Your task to perform on an android device: Do I have any events this weekend? Image 0: 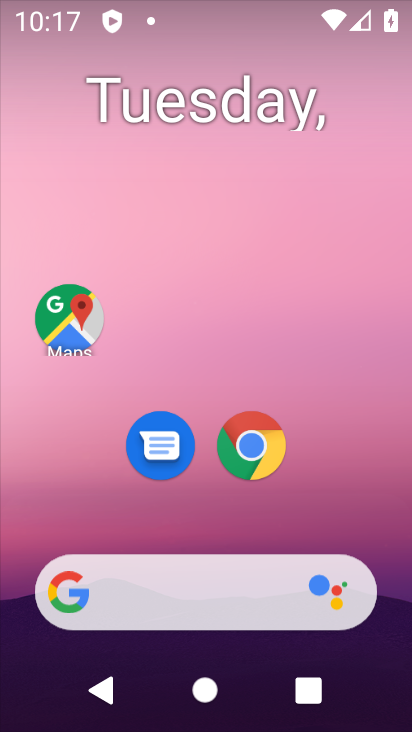
Step 0: drag from (335, 527) to (277, 10)
Your task to perform on an android device: Do I have any events this weekend? Image 1: 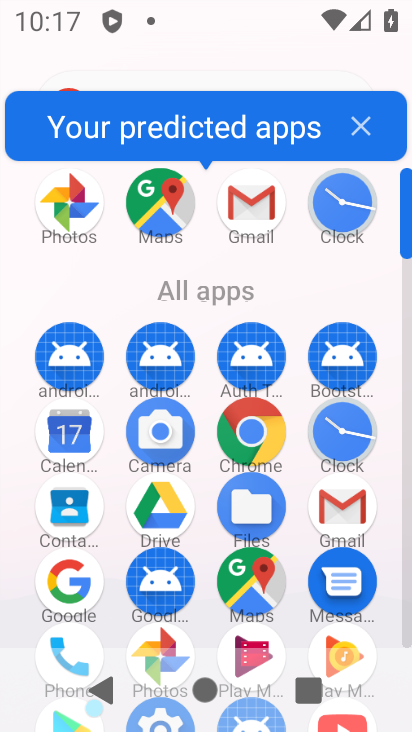
Step 1: press home button
Your task to perform on an android device: Do I have any events this weekend? Image 2: 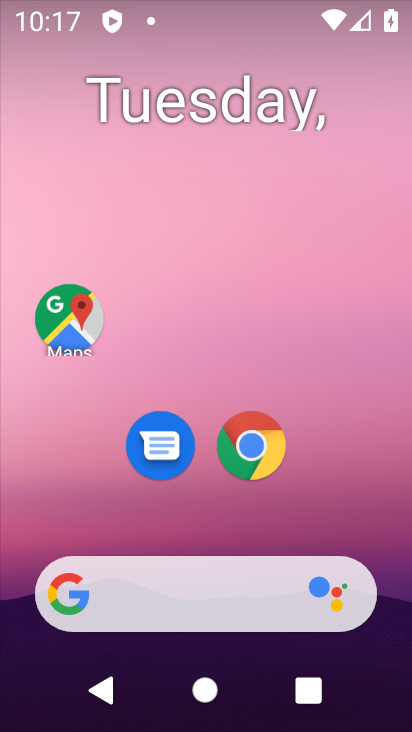
Step 2: drag from (272, 470) to (274, 81)
Your task to perform on an android device: Do I have any events this weekend? Image 3: 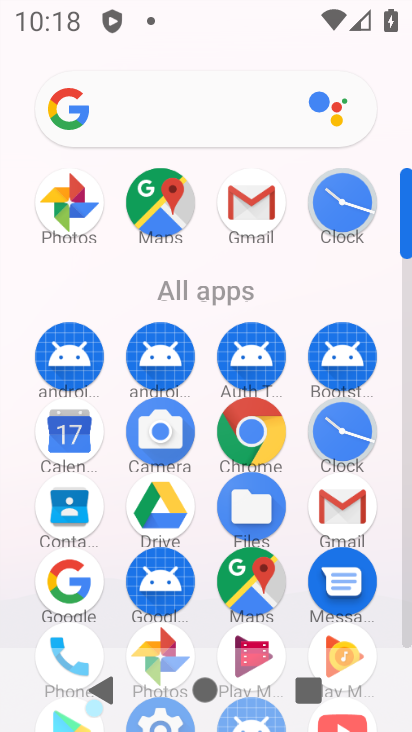
Step 3: drag from (282, 548) to (277, 151)
Your task to perform on an android device: Do I have any events this weekend? Image 4: 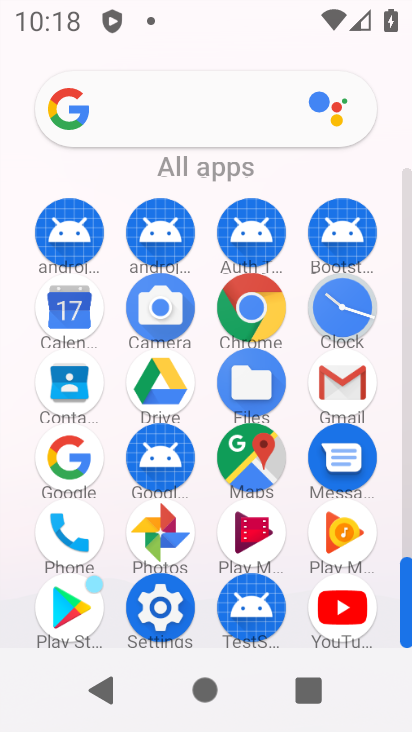
Step 4: drag from (263, 250) to (172, 554)
Your task to perform on an android device: Do I have any events this weekend? Image 5: 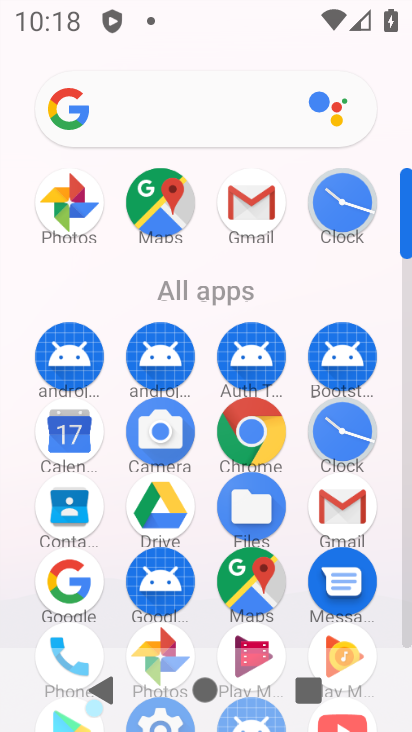
Step 5: click (73, 439)
Your task to perform on an android device: Do I have any events this weekend? Image 6: 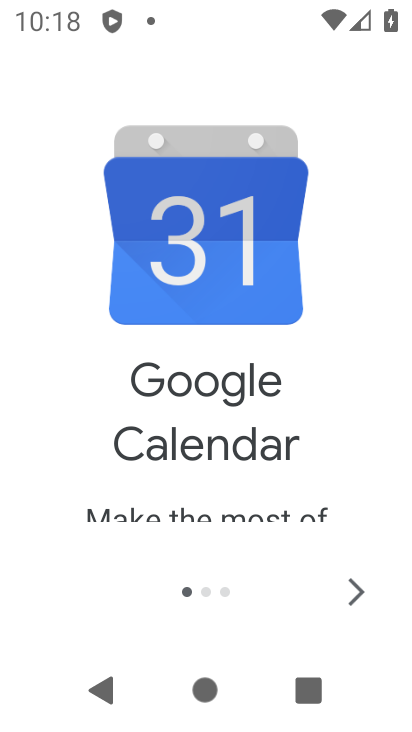
Step 6: click (357, 596)
Your task to perform on an android device: Do I have any events this weekend? Image 7: 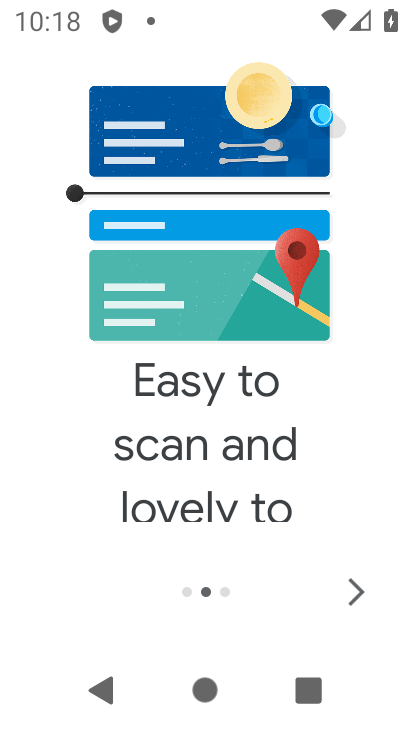
Step 7: click (357, 596)
Your task to perform on an android device: Do I have any events this weekend? Image 8: 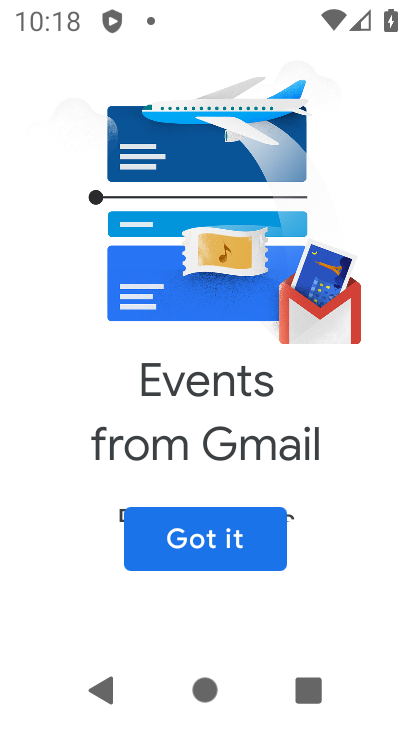
Step 8: click (192, 556)
Your task to perform on an android device: Do I have any events this weekend? Image 9: 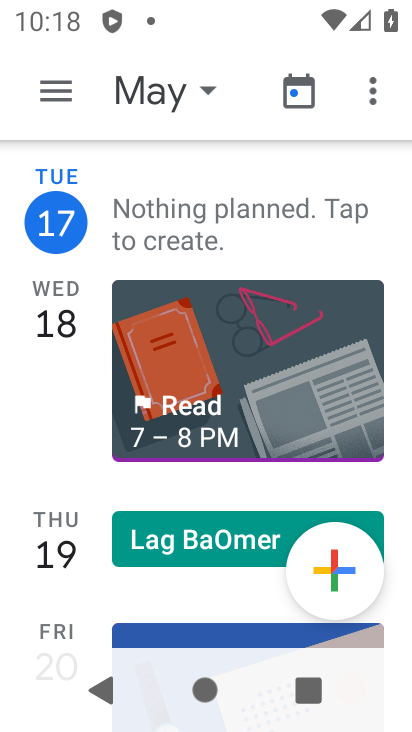
Step 9: task complete